Your task to perform on an android device: toggle sleep mode Image 0: 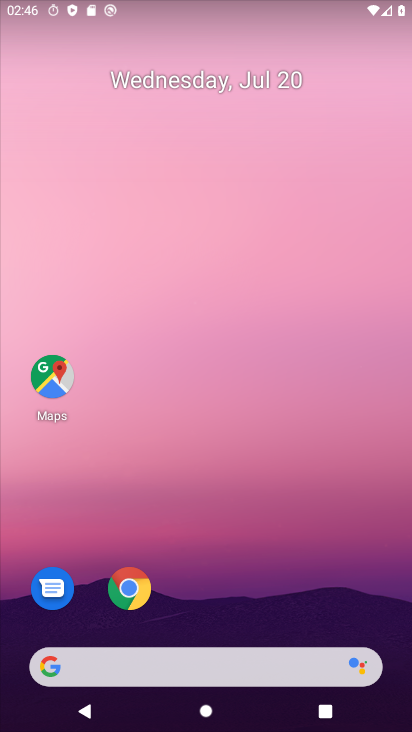
Step 0: drag from (230, 624) to (322, 216)
Your task to perform on an android device: toggle sleep mode Image 1: 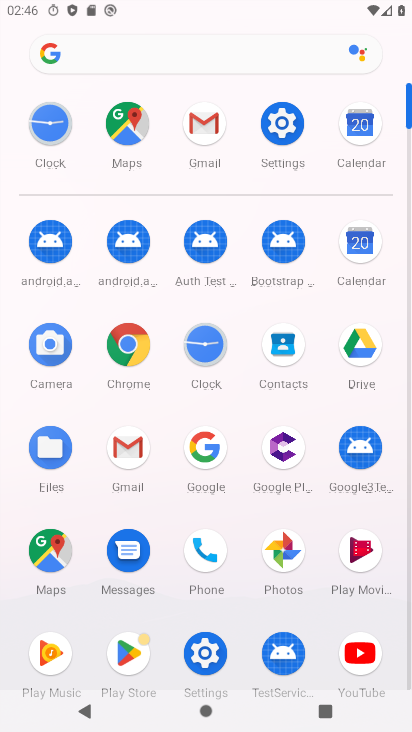
Step 1: click (209, 642)
Your task to perform on an android device: toggle sleep mode Image 2: 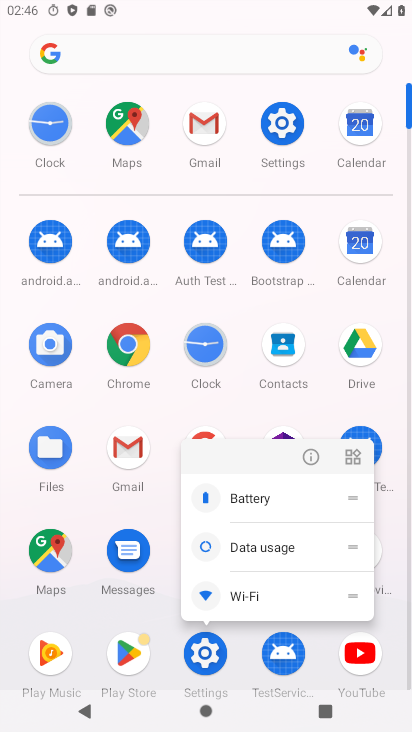
Step 2: click (313, 451)
Your task to perform on an android device: toggle sleep mode Image 3: 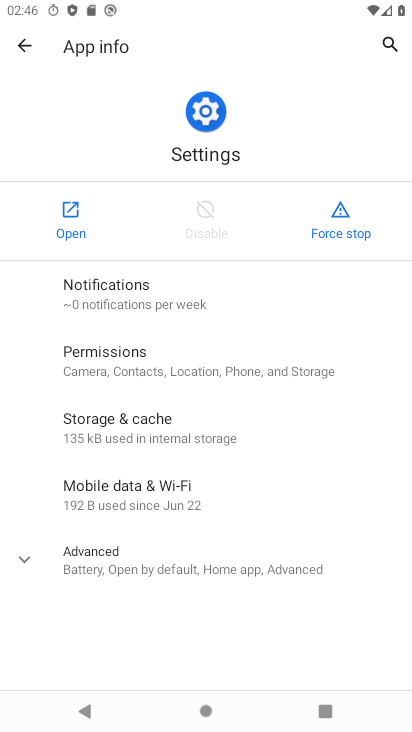
Step 3: click (85, 202)
Your task to perform on an android device: toggle sleep mode Image 4: 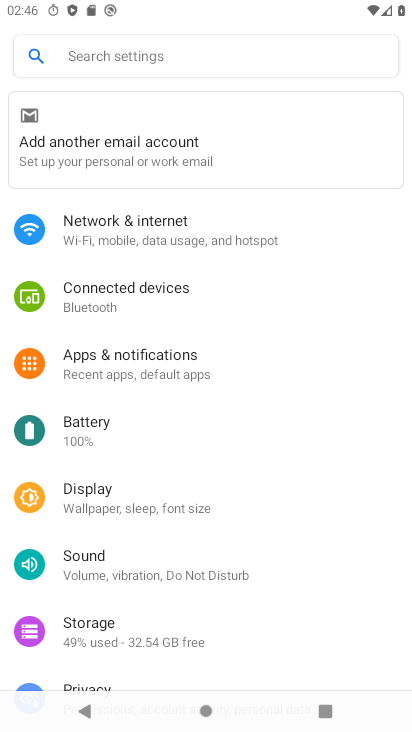
Step 4: click (128, 508)
Your task to perform on an android device: toggle sleep mode Image 5: 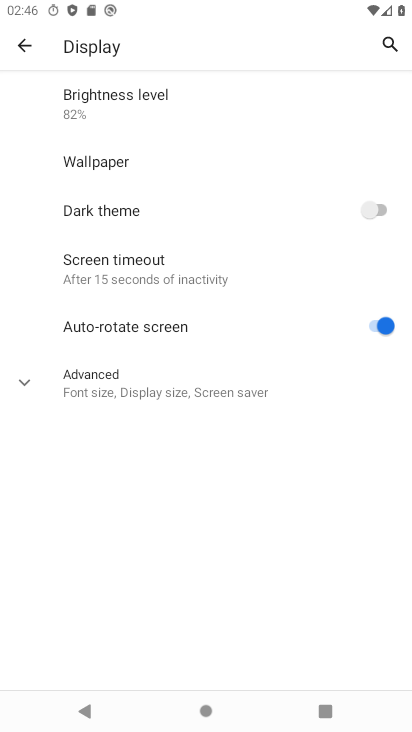
Step 5: click (143, 254)
Your task to perform on an android device: toggle sleep mode Image 6: 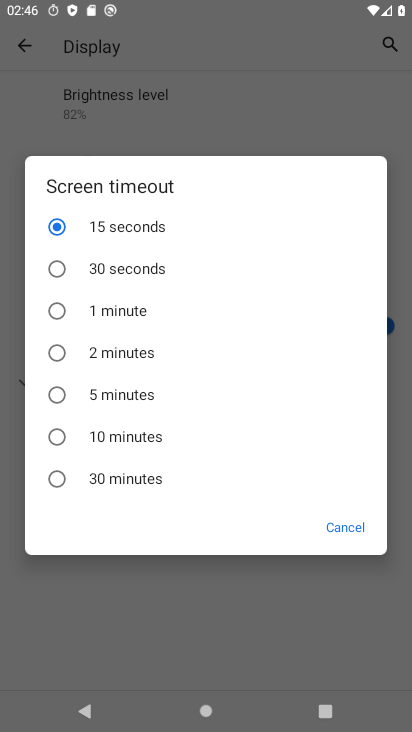
Step 6: click (81, 320)
Your task to perform on an android device: toggle sleep mode Image 7: 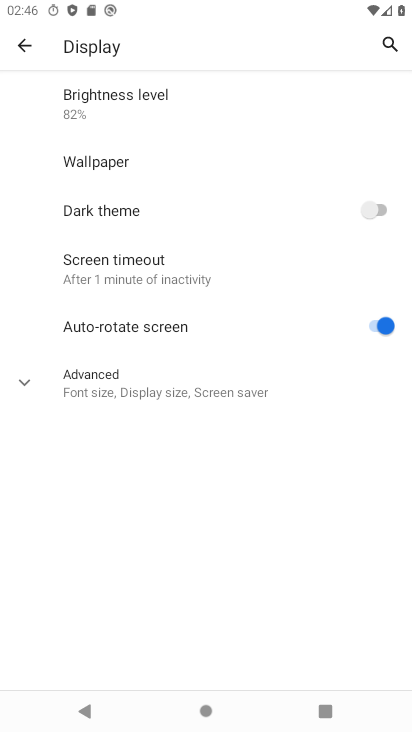
Step 7: task complete